Your task to perform on an android device: Open CNN.com Image 0: 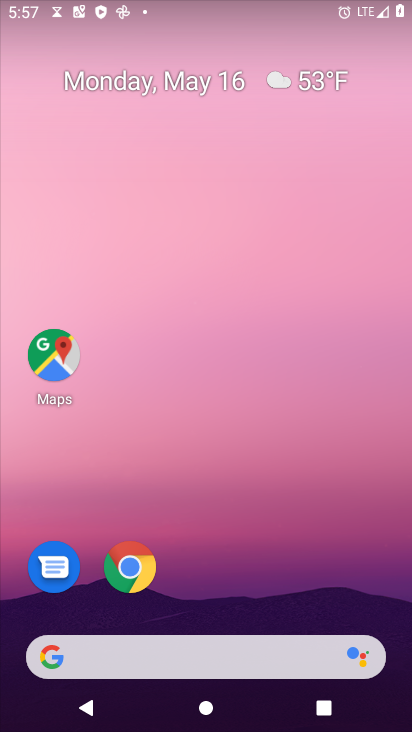
Step 0: drag from (243, 637) to (248, 21)
Your task to perform on an android device: Open CNN.com Image 1: 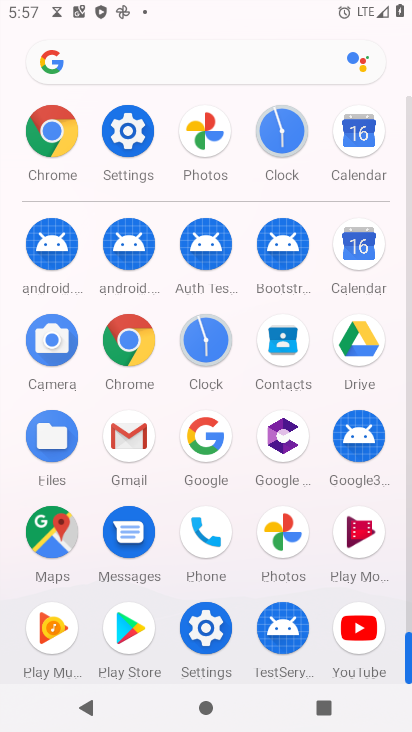
Step 1: click (142, 343)
Your task to perform on an android device: Open CNN.com Image 2: 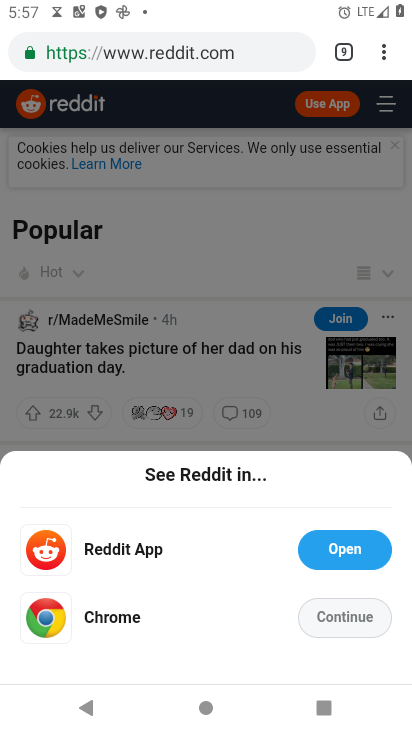
Step 2: click (234, 49)
Your task to perform on an android device: Open CNN.com Image 3: 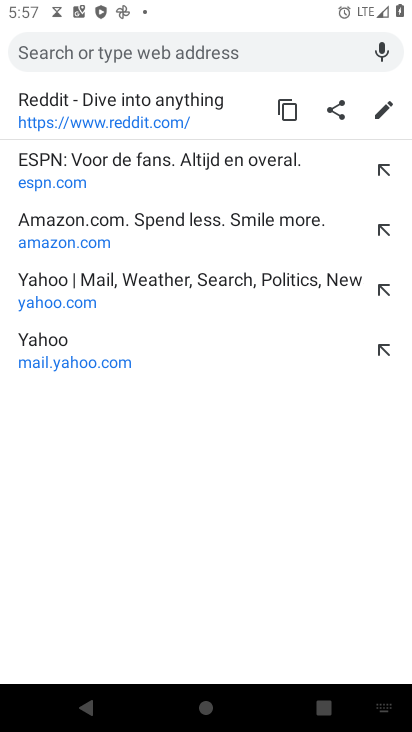
Step 3: type "cnn.com"
Your task to perform on an android device: Open CNN.com Image 4: 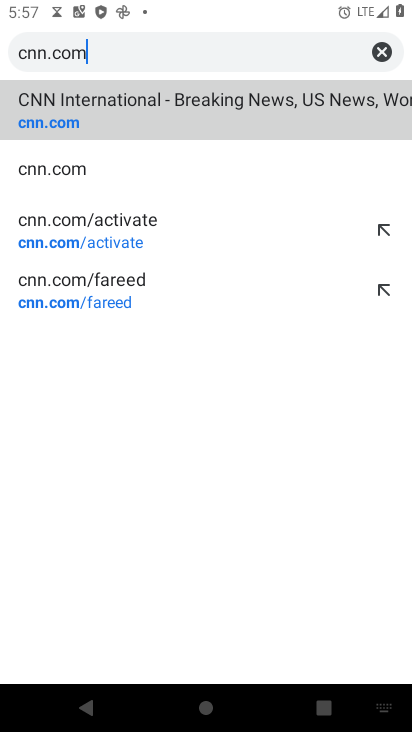
Step 4: click (93, 106)
Your task to perform on an android device: Open CNN.com Image 5: 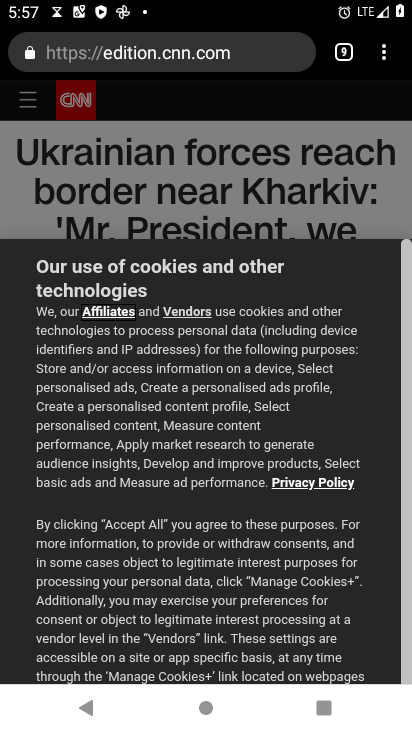
Step 5: task complete